Your task to perform on an android device: Go to network settings Image 0: 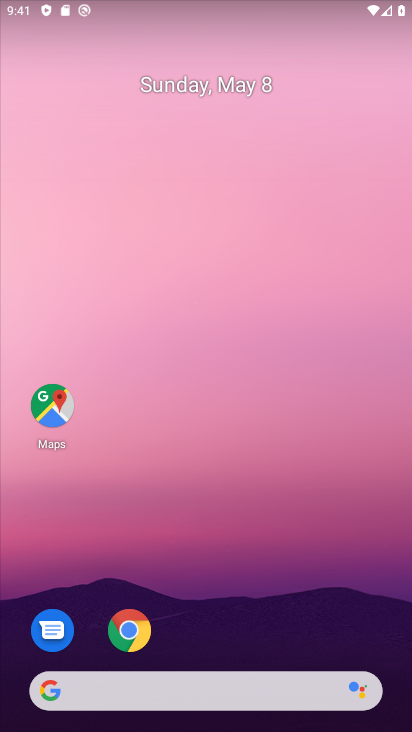
Step 0: drag from (206, 729) to (174, 168)
Your task to perform on an android device: Go to network settings Image 1: 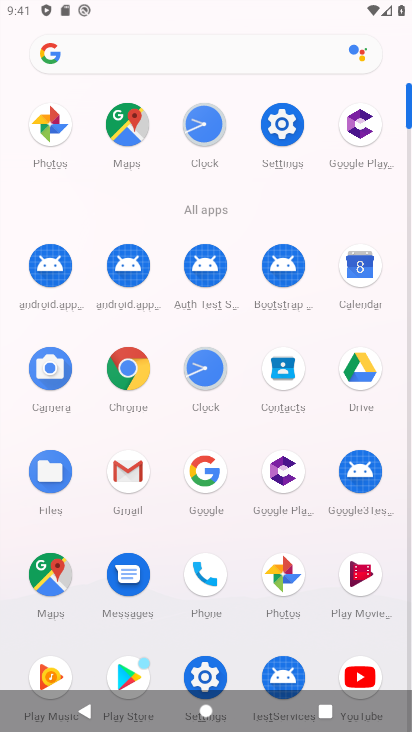
Step 1: click (285, 127)
Your task to perform on an android device: Go to network settings Image 2: 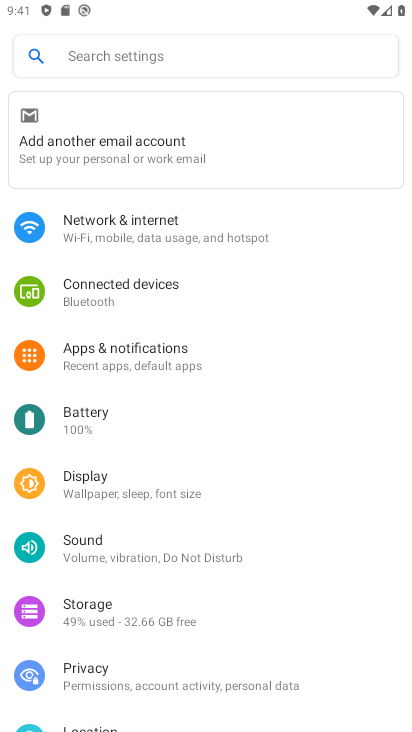
Step 2: click (110, 226)
Your task to perform on an android device: Go to network settings Image 3: 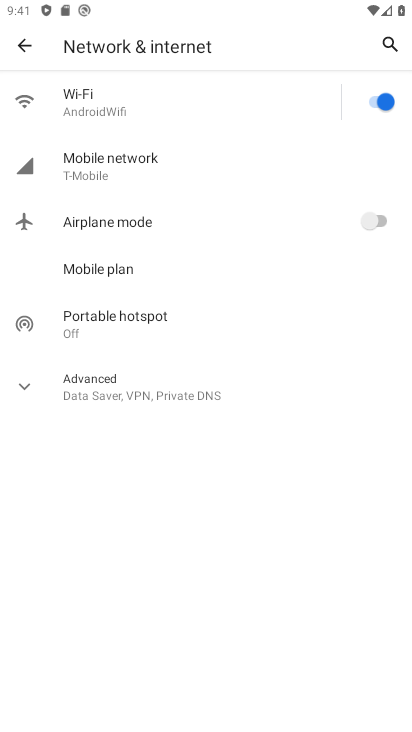
Step 3: task complete